Your task to perform on an android device: Go to Yahoo.com Image 0: 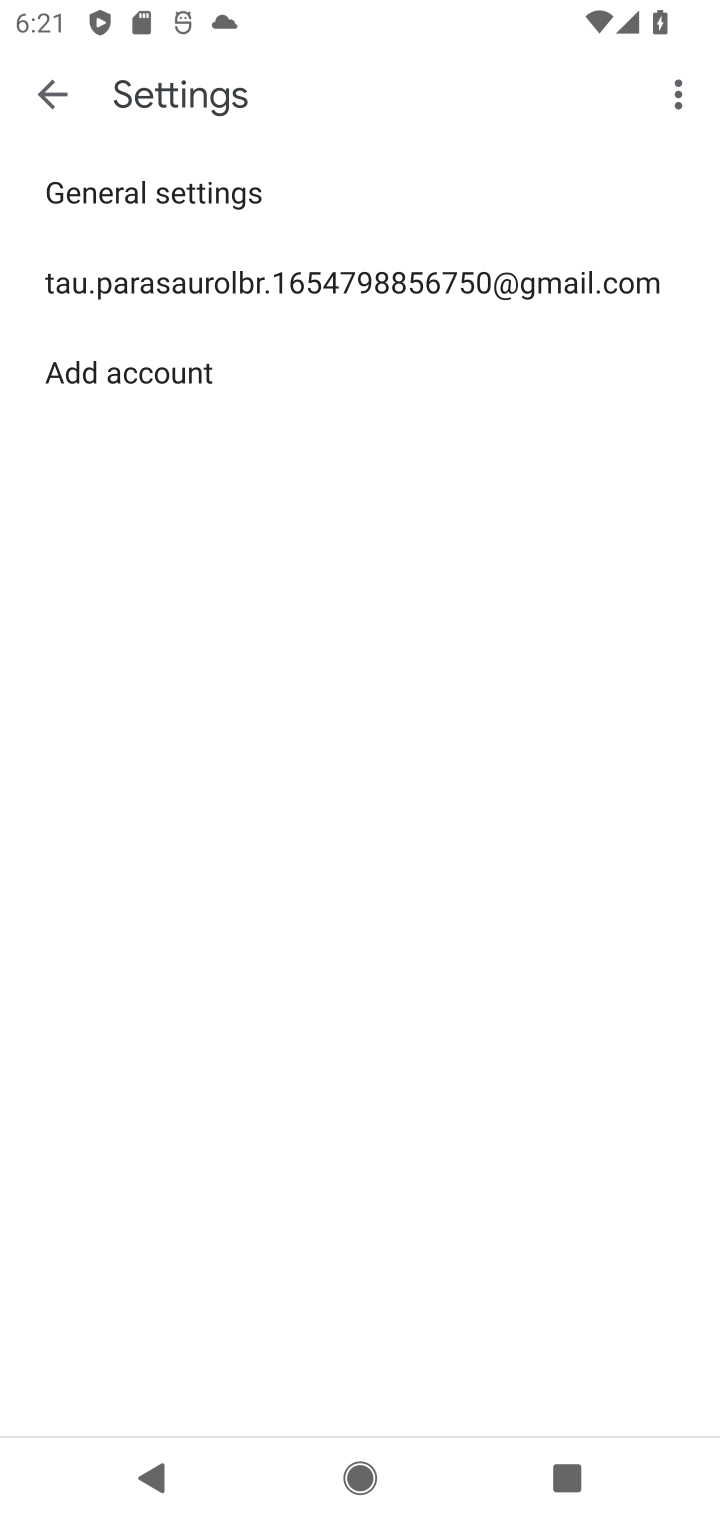
Step 0: press home button
Your task to perform on an android device: Go to Yahoo.com Image 1: 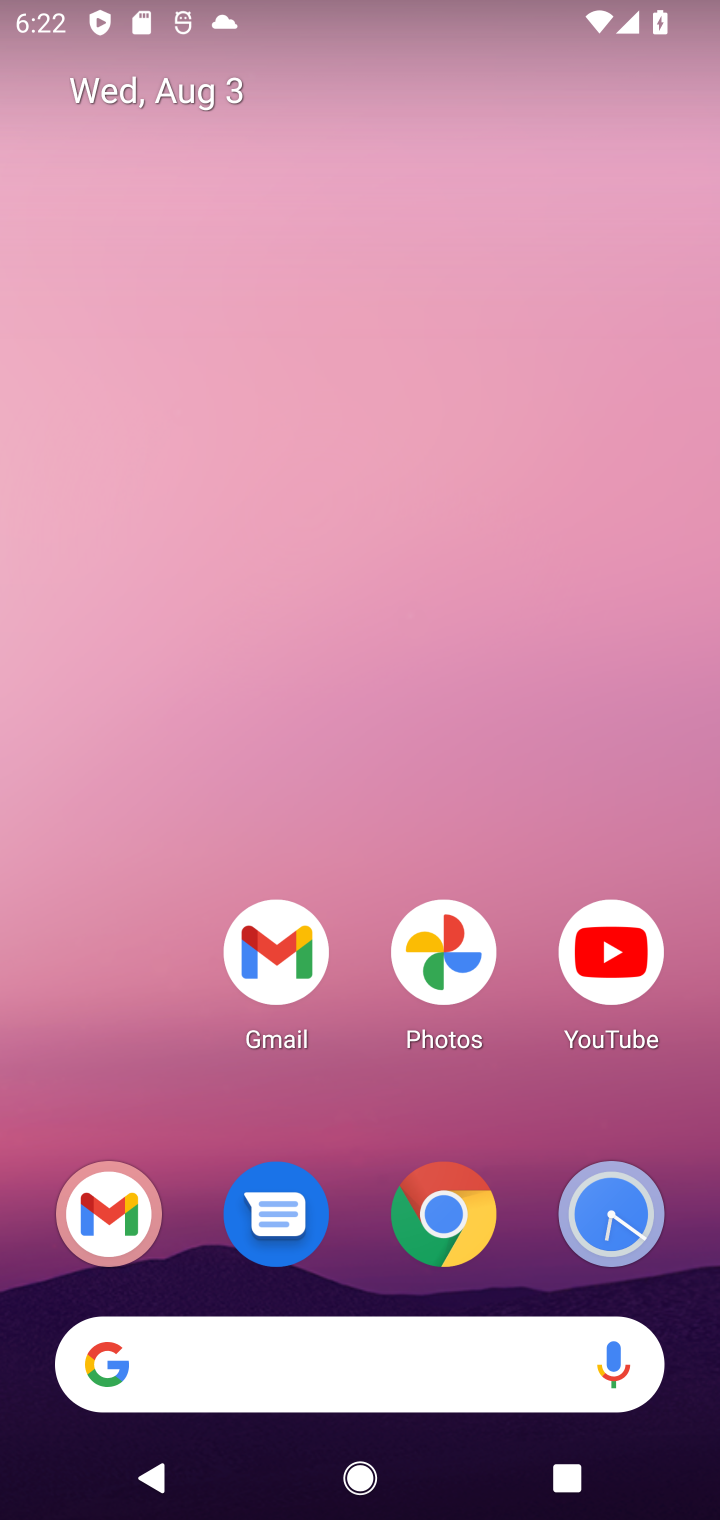
Step 1: drag from (107, 724) to (300, 100)
Your task to perform on an android device: Go to Yahoo.com Image 2: 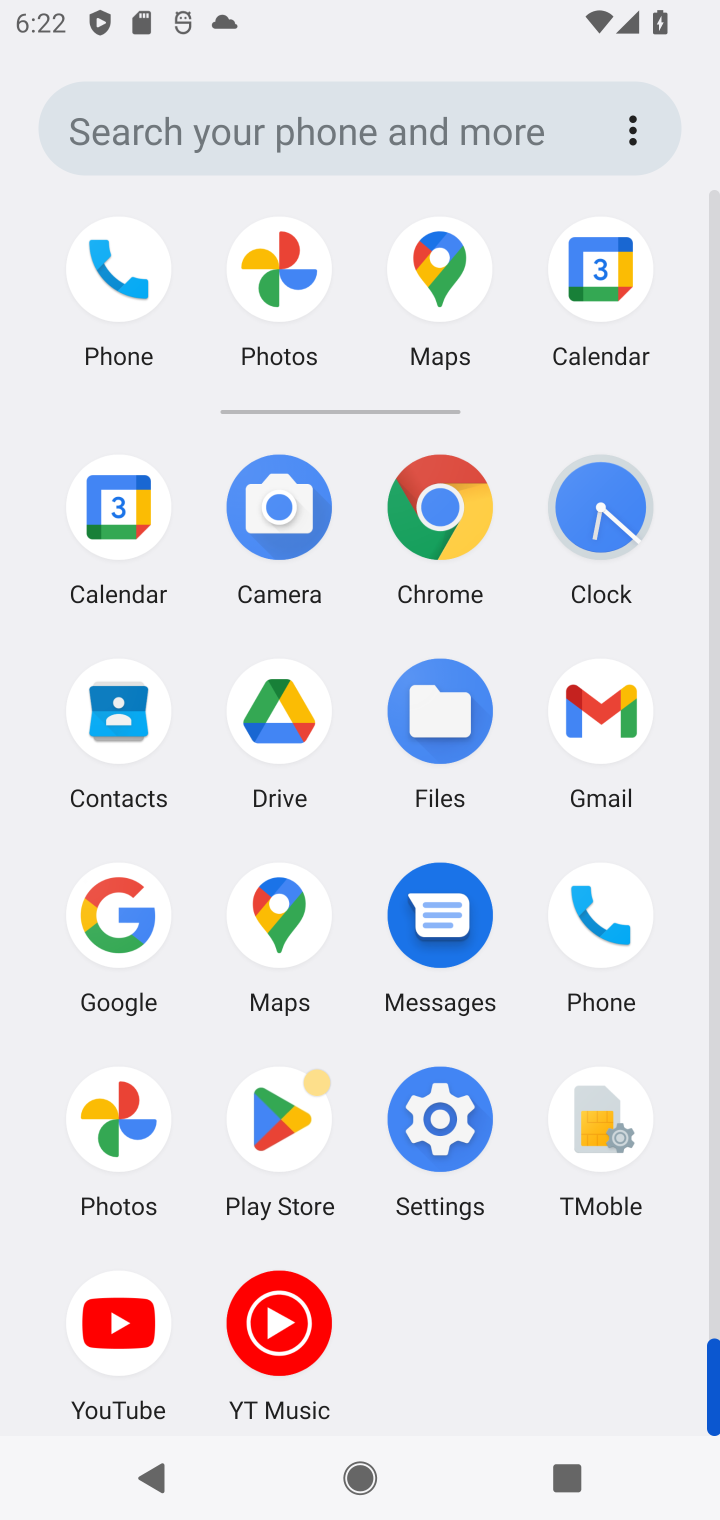
Step 2: click (417, 515)
Your task to perform on an android device: Go to Yahoo.com Image 3: 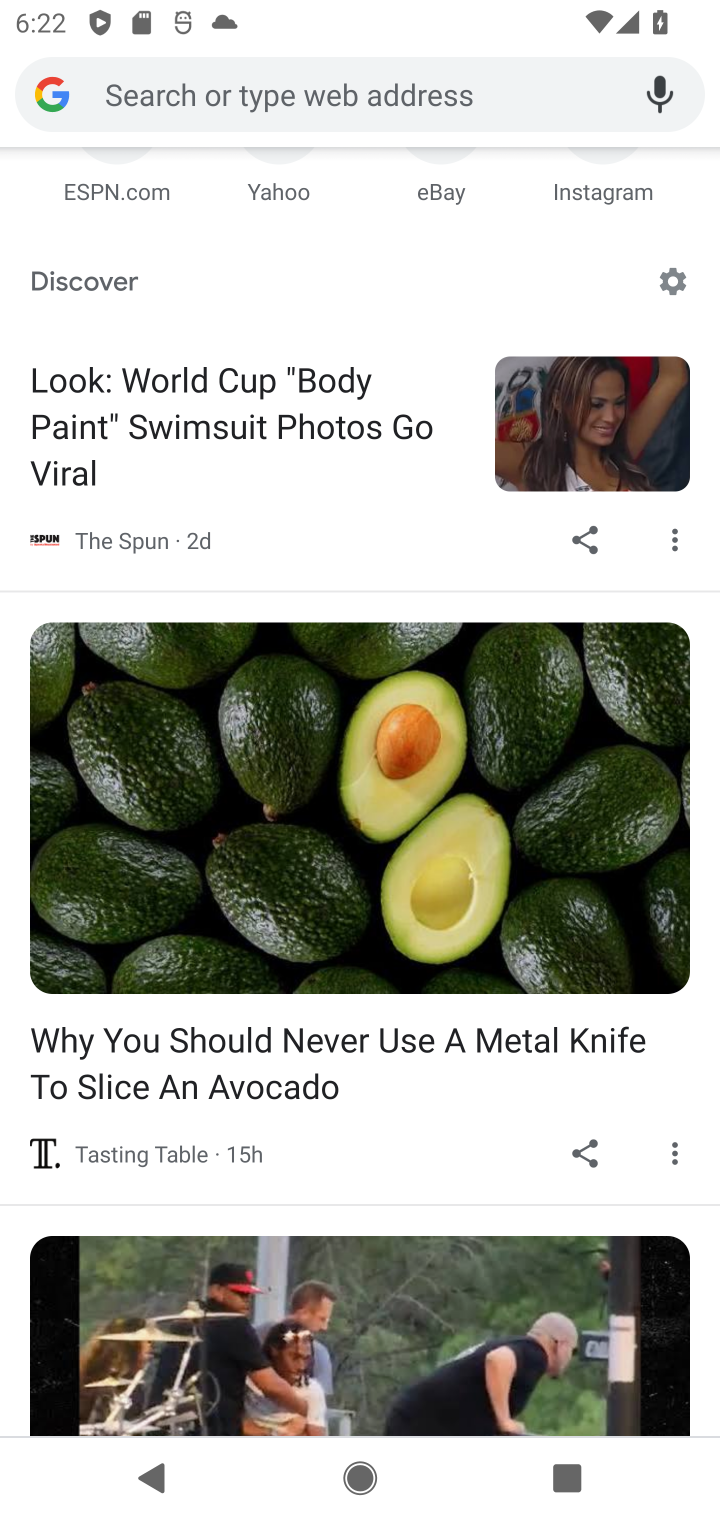
Step 3: drag from (362, 1329) to (400, 1443)
Your task to perform on an android device: Go to Yahoo.com Image 4: 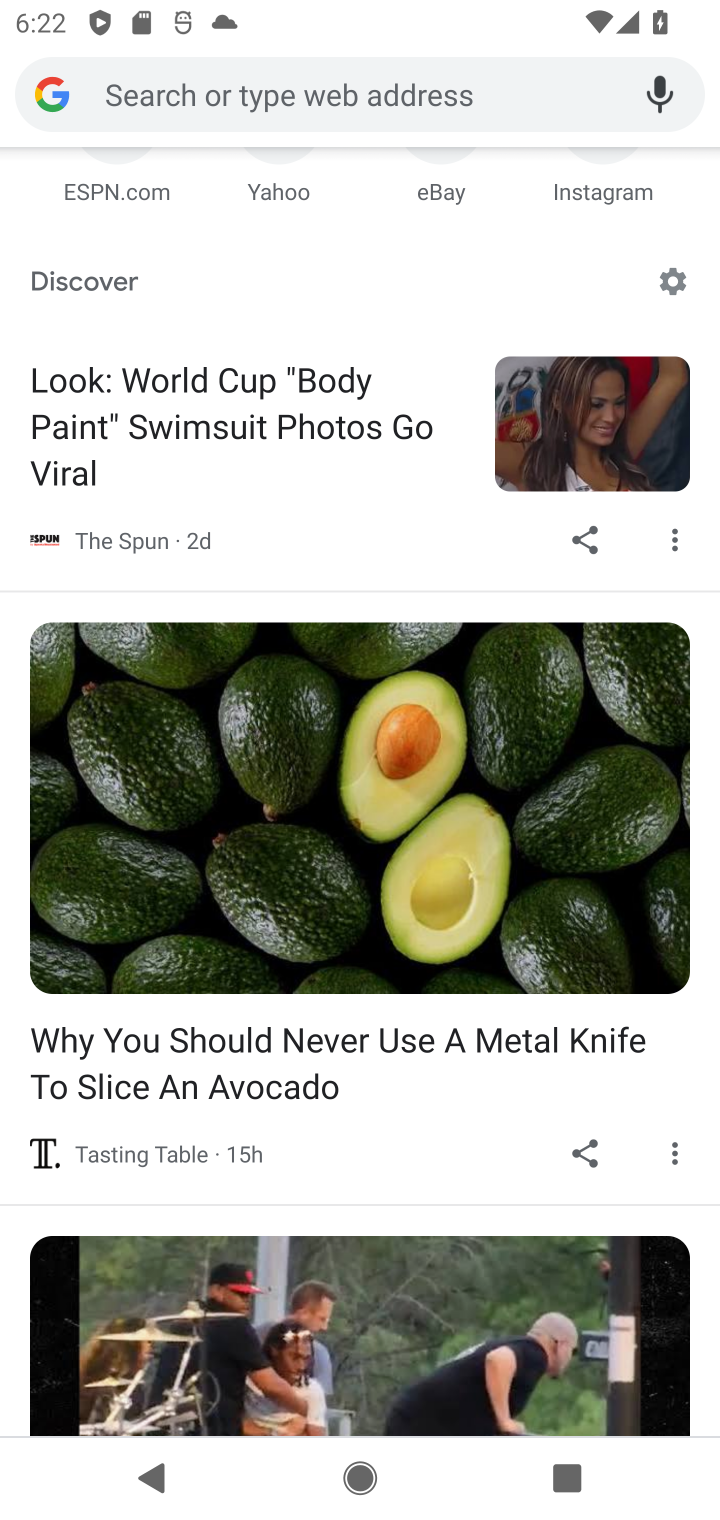
Step 4: drag from (416, 607) to (540, 1306)
Your task to perform on an android device: Go to Yahoo.com Image 5: 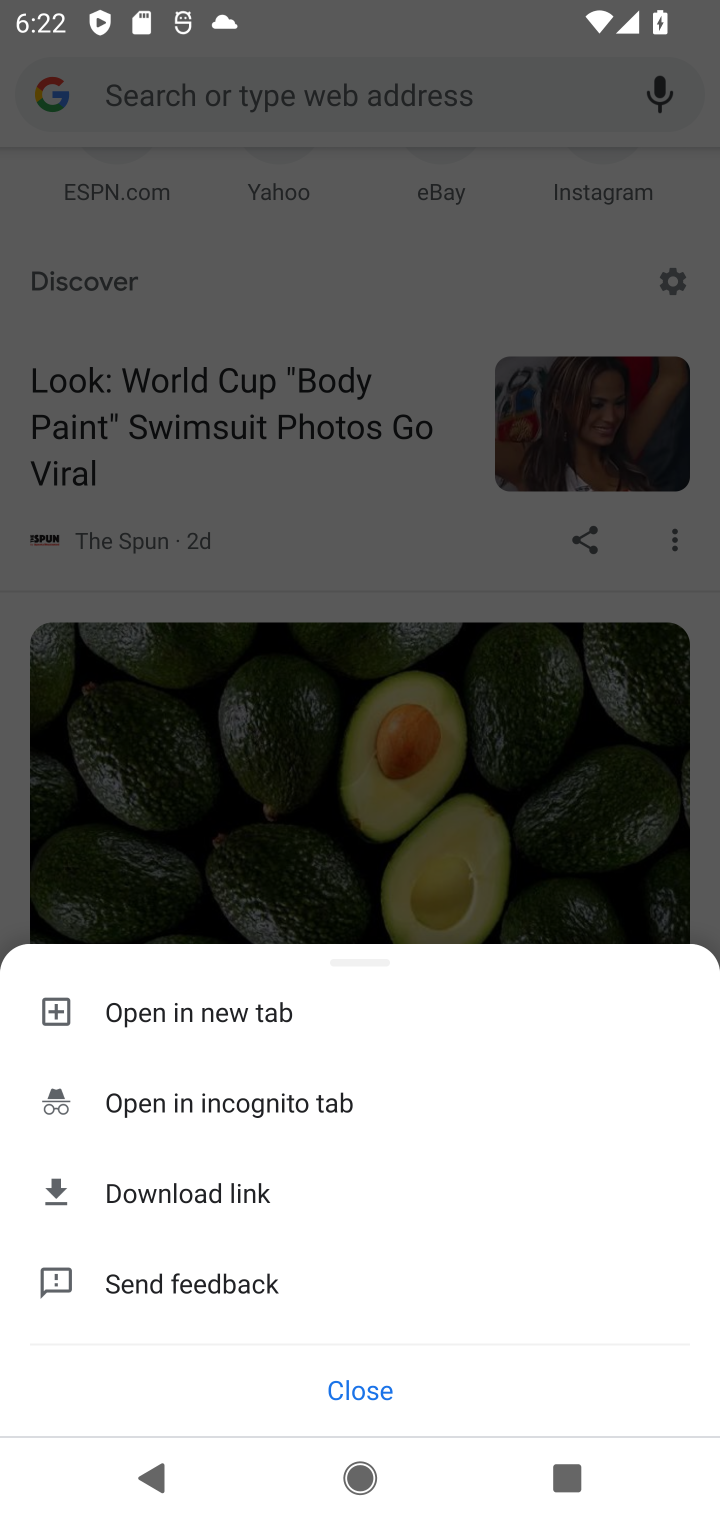
Step 5: click (368, 321)
Your task to perform on an android device: Go to Yahoo.com Image 6: 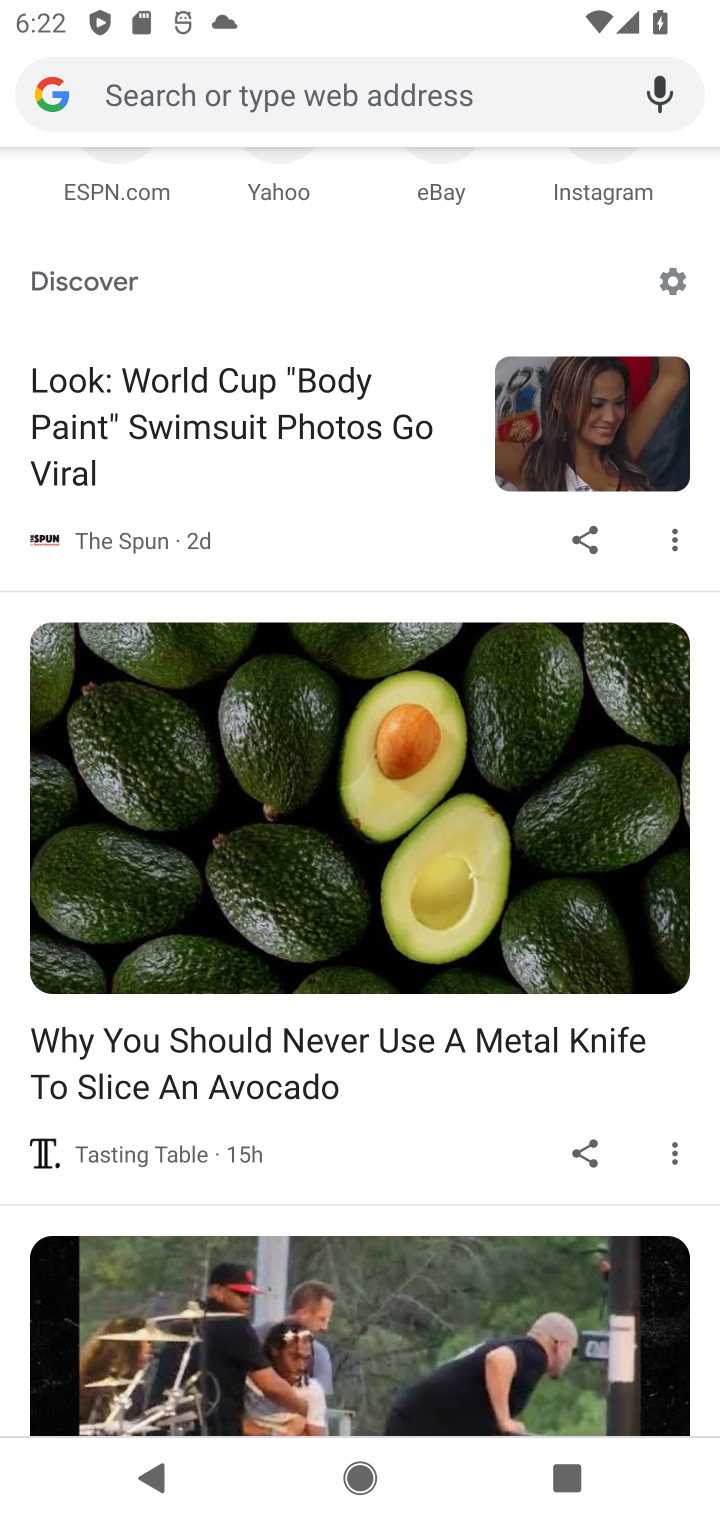
Step 6: drag from (428, 437) to (565, 1183)
Your task to perform on an android device: Go to Yahoo.com Image 7: 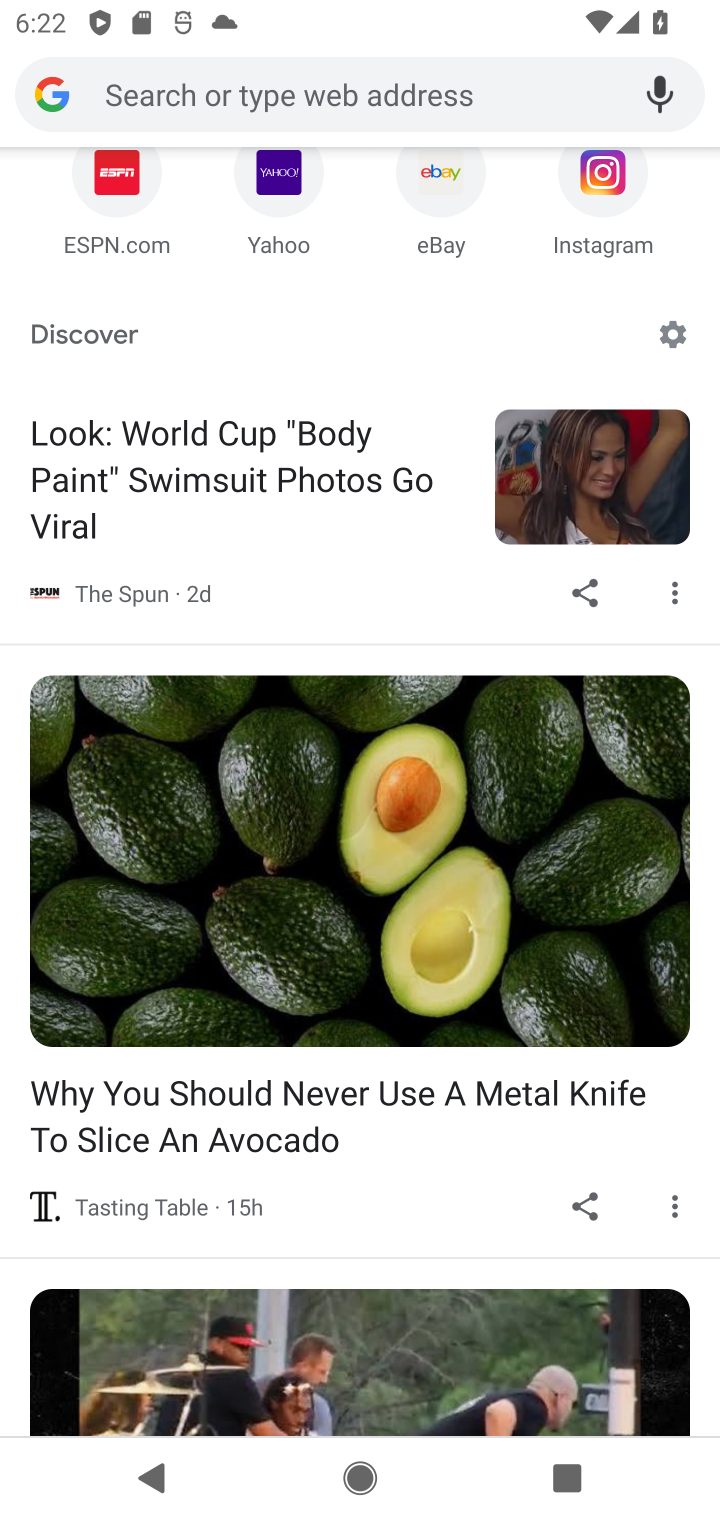
Step 7: drag from (403, 998) to (502, 1205)
Your task to perform on an android device: Go to Yahoo.com Image 8: 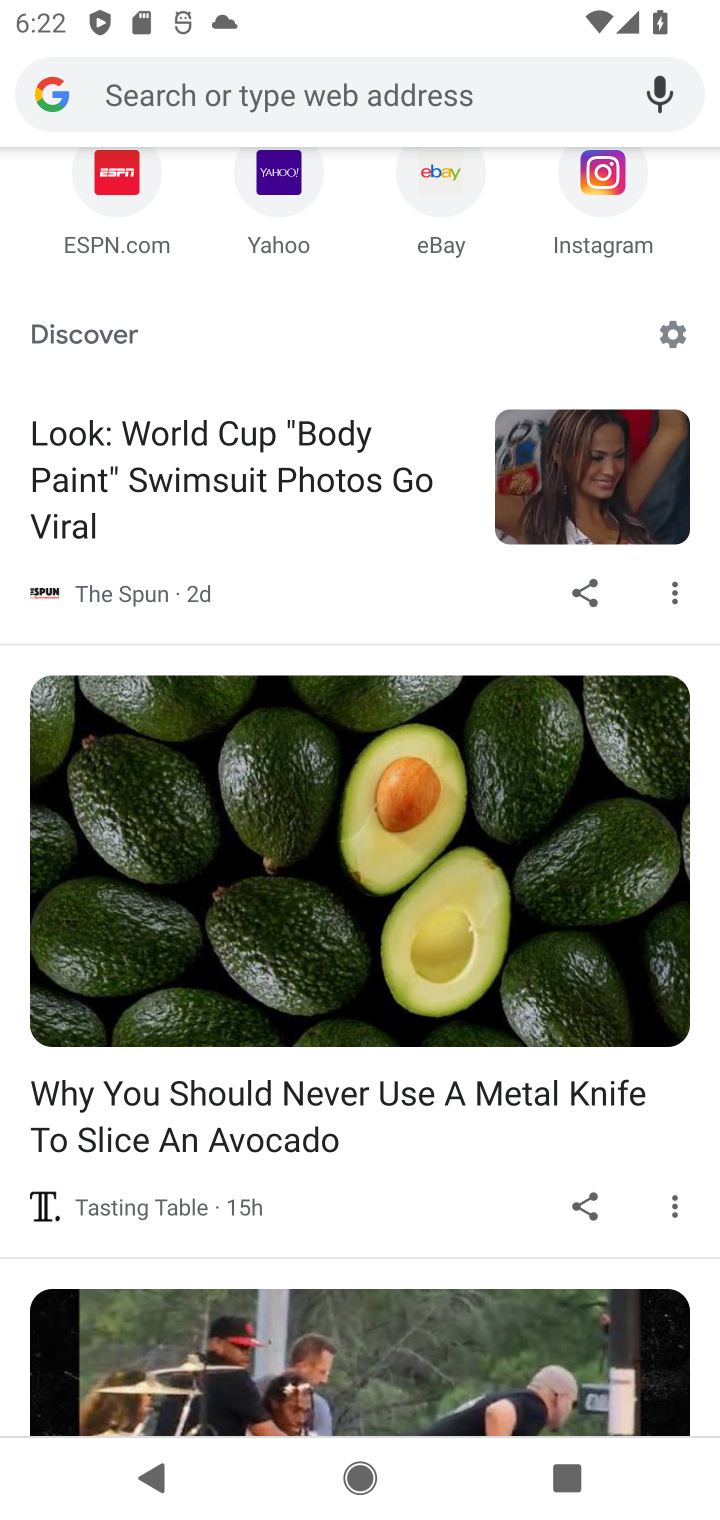
Step 8: drag from (318, 351) to (483, 1317)
Your task to perform on an android device: Go to Yahoo.com Image 9: 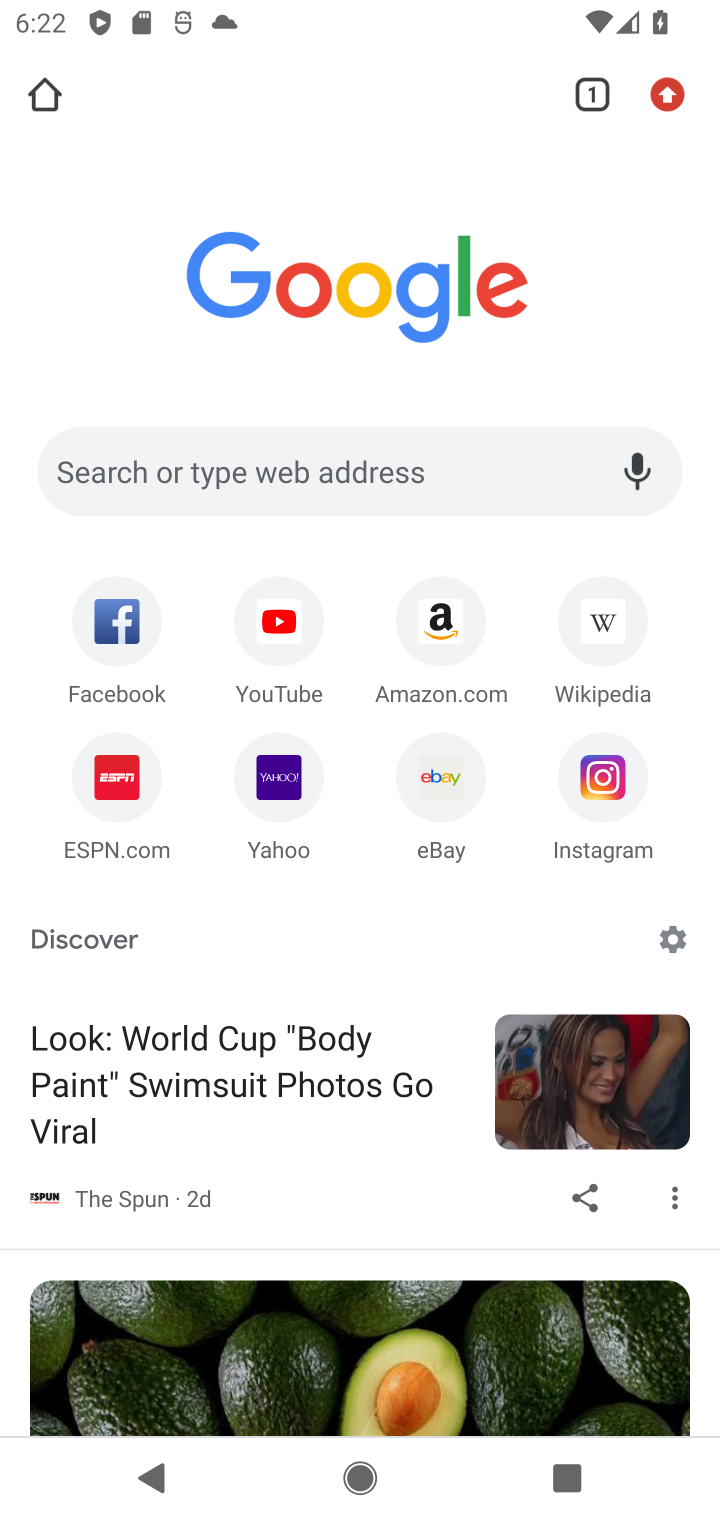
Step 9: click (270, 790)
Your task to perform on an android device: Go to Yahoo.com Image 10: 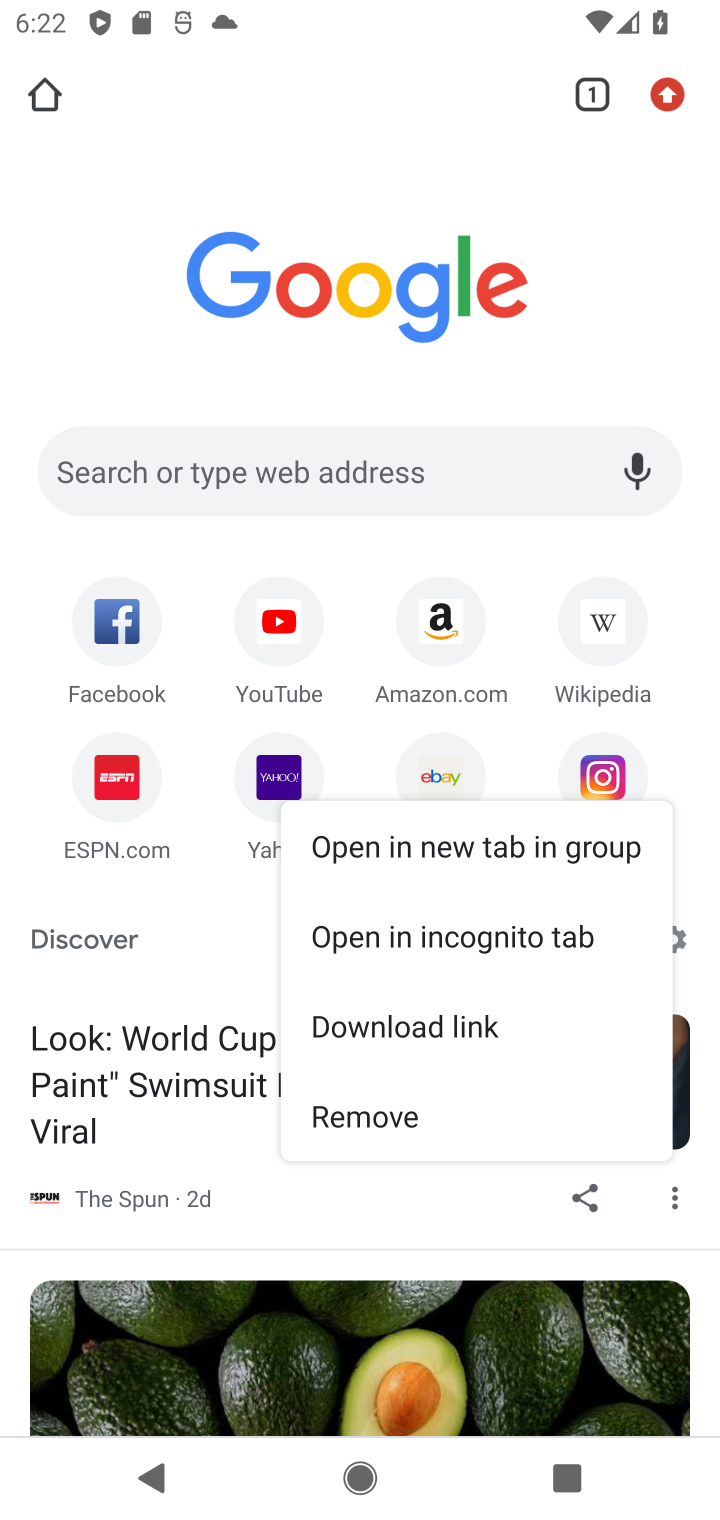
Step 10: click (270, 788)
Your task to perform on an android device: Go to Yahoo.com Image 11: 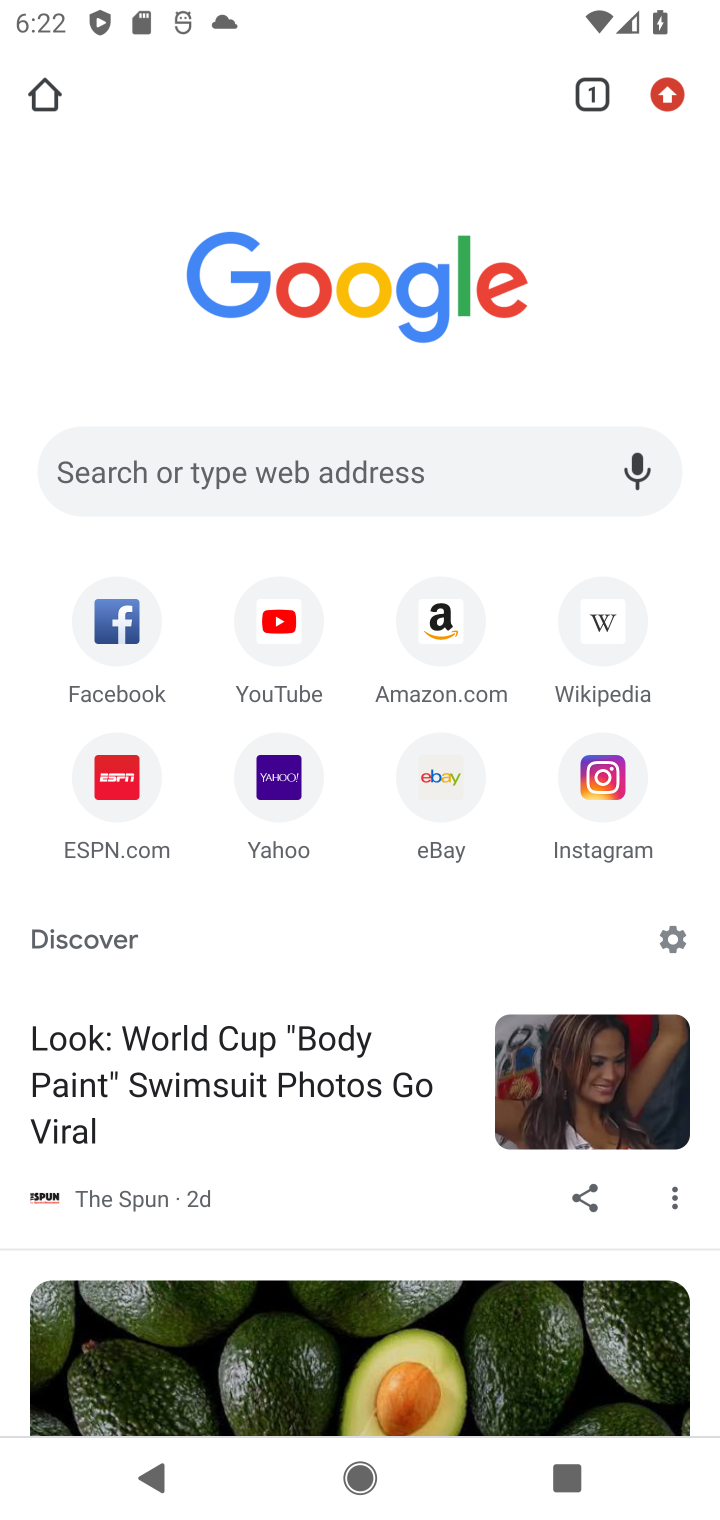
Step 11: click (268, 787)
Your task to perform on an android device: Go to Yahoo.com Image 12: 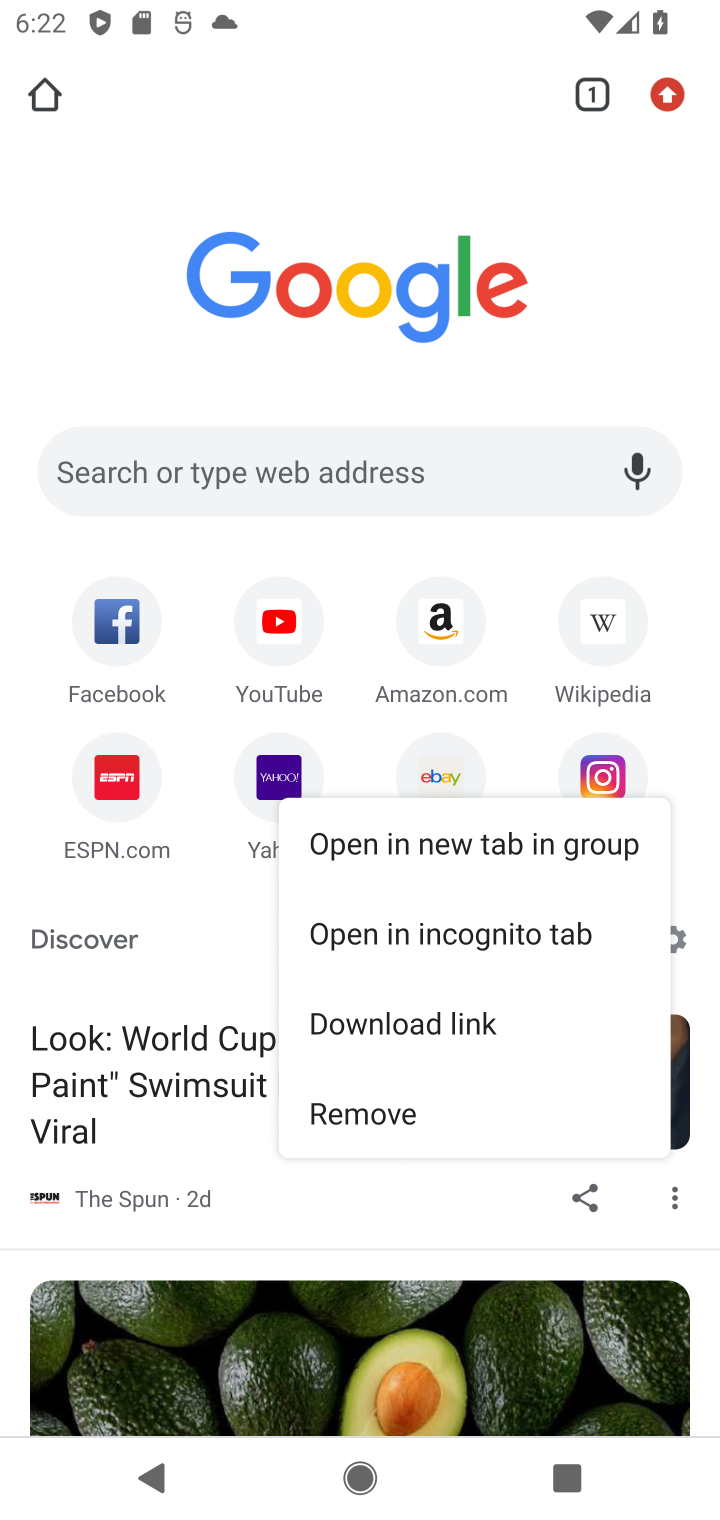
Step 12: click (263, 785)
Your task to perform on an android device: Go to Yahoo.com Image 13: 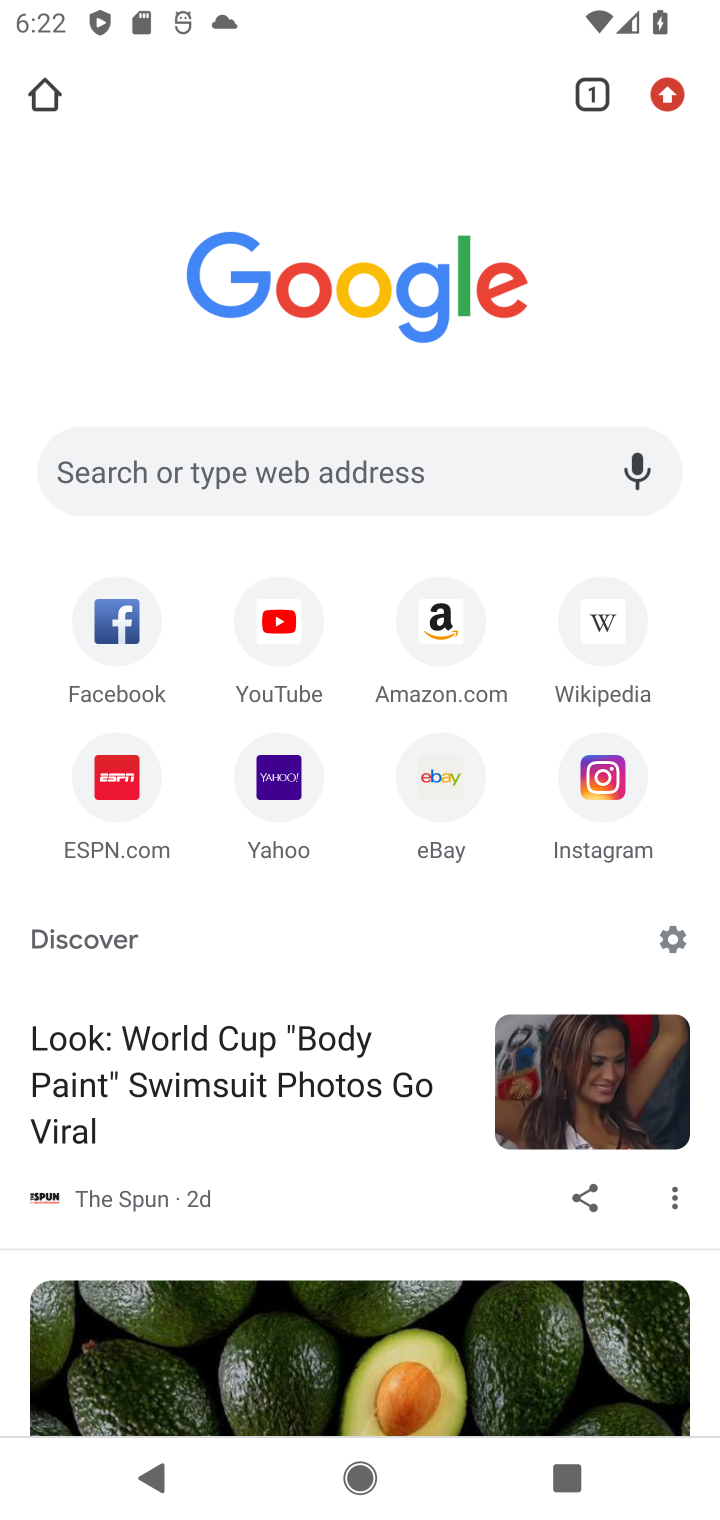
Step 13: click (282, 787)
Your task to perform on an android device: Go to Yahoo.com Image 14: 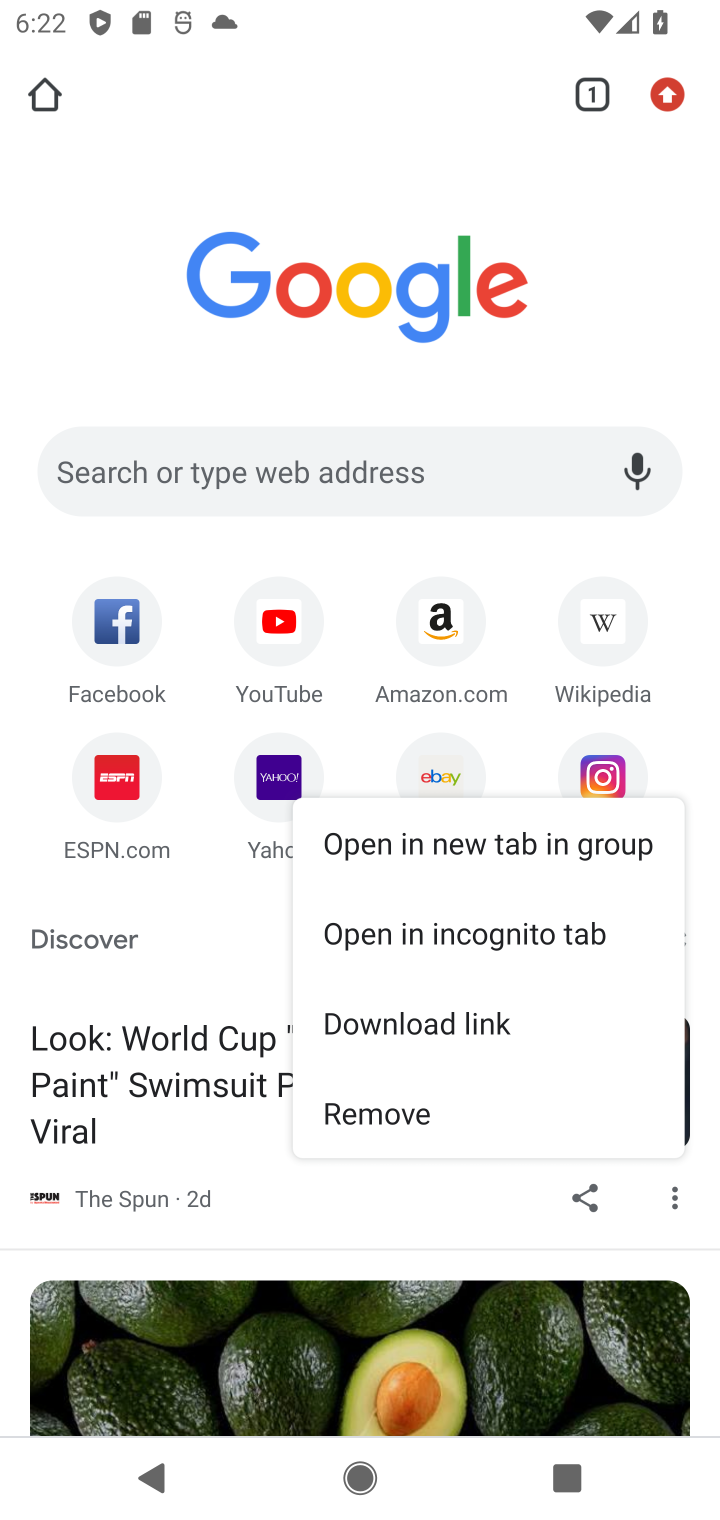
Step 14: click (282, 785)
Your task to perform on an android device: Go to Yahoo.com Image 15: 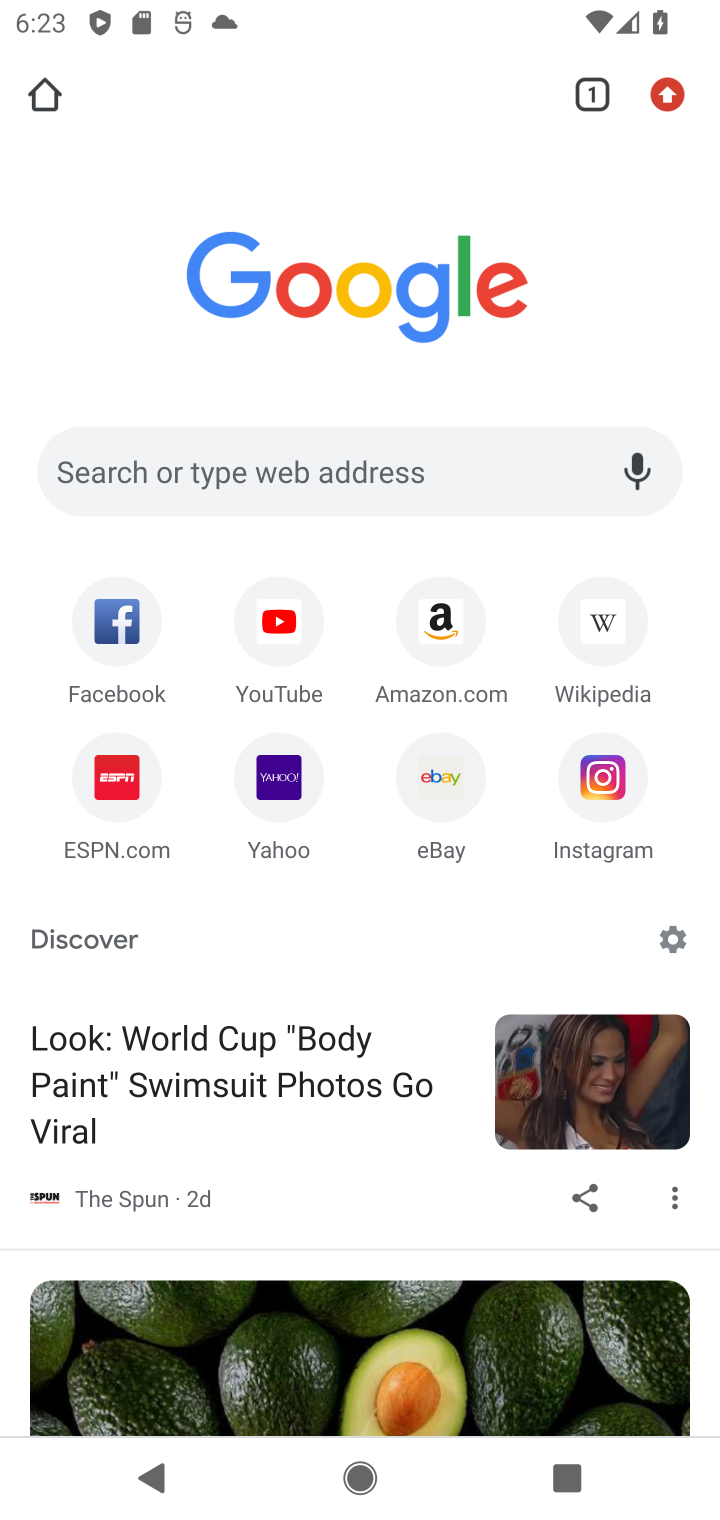
Step 15: click (282, 783)
Your task to perform on an android device: Go to Yahoo.com Image 16: 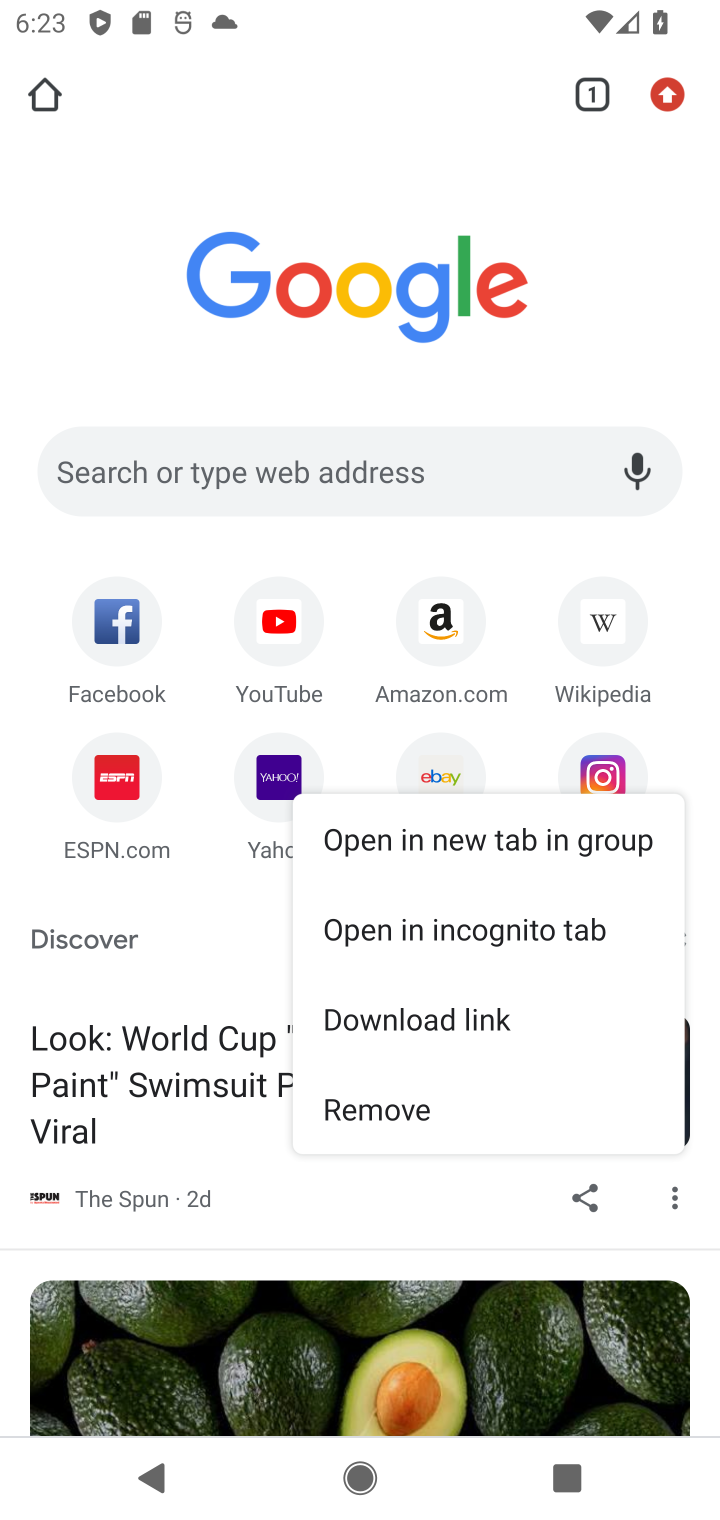
Step 16: click (282, 783)
Your task to perform on an android device: Go to Yahoo.com Image 17: 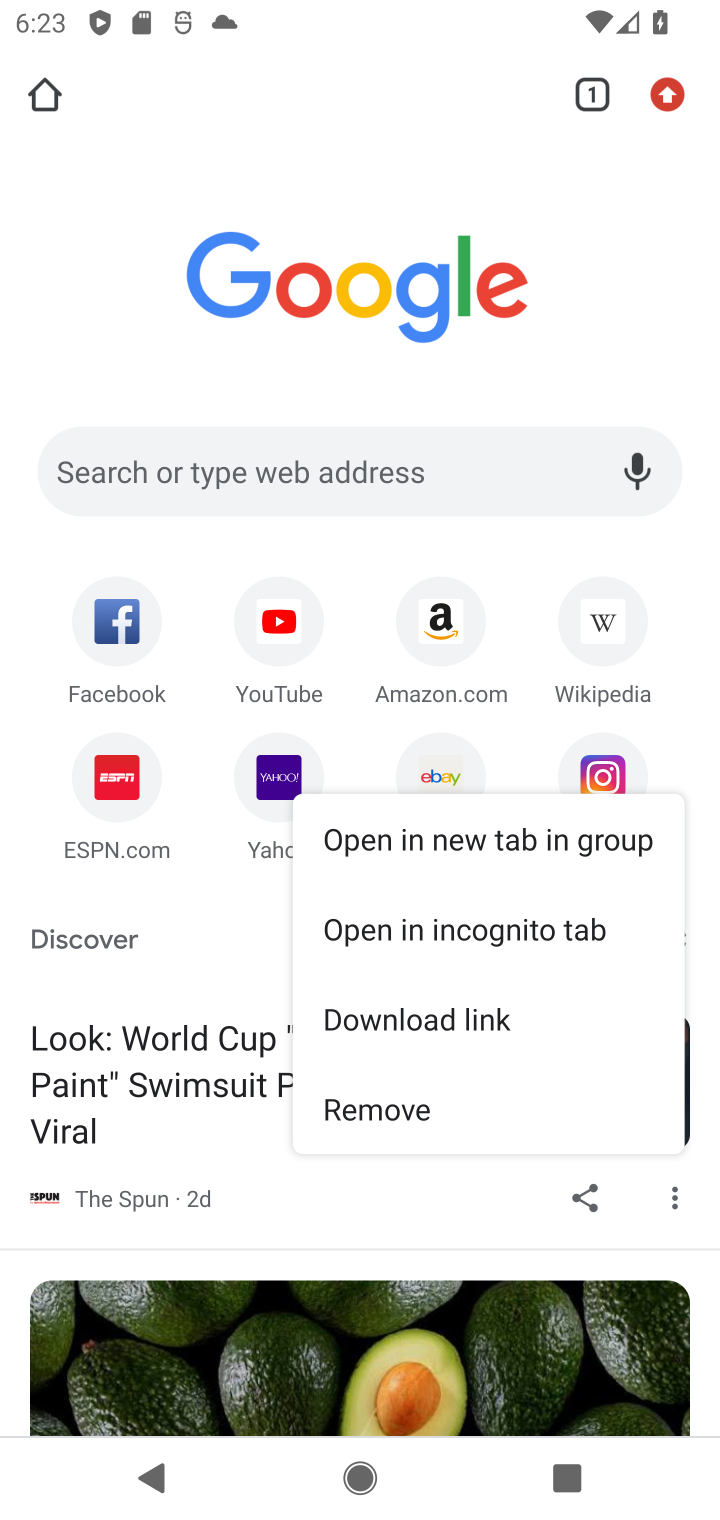
Step 17: click (282, 785)
Your task to perform on an android device: Go to Yahoo.com Image 18: 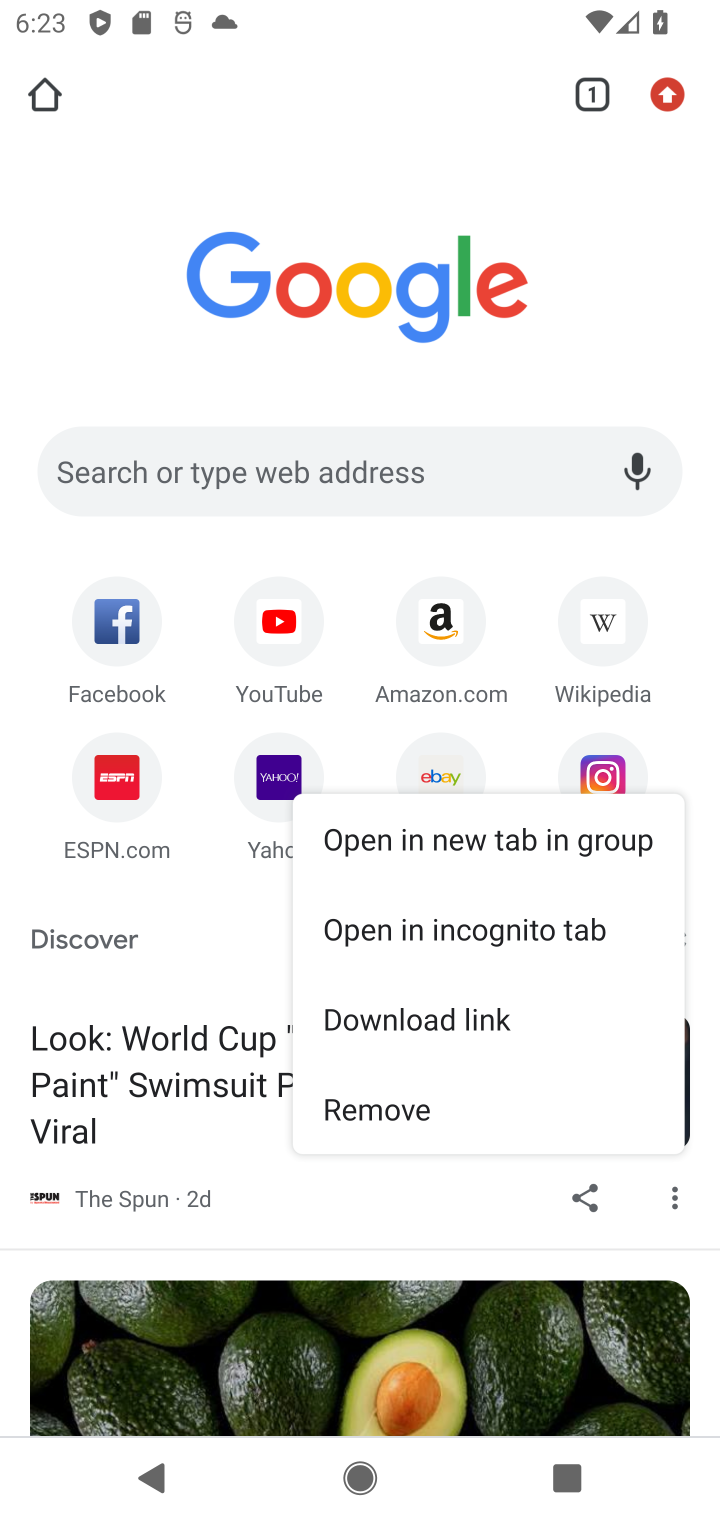
Step 18: click (282, 783)
Your task to perform on an android device: Go to Yahoo.com Image 19: 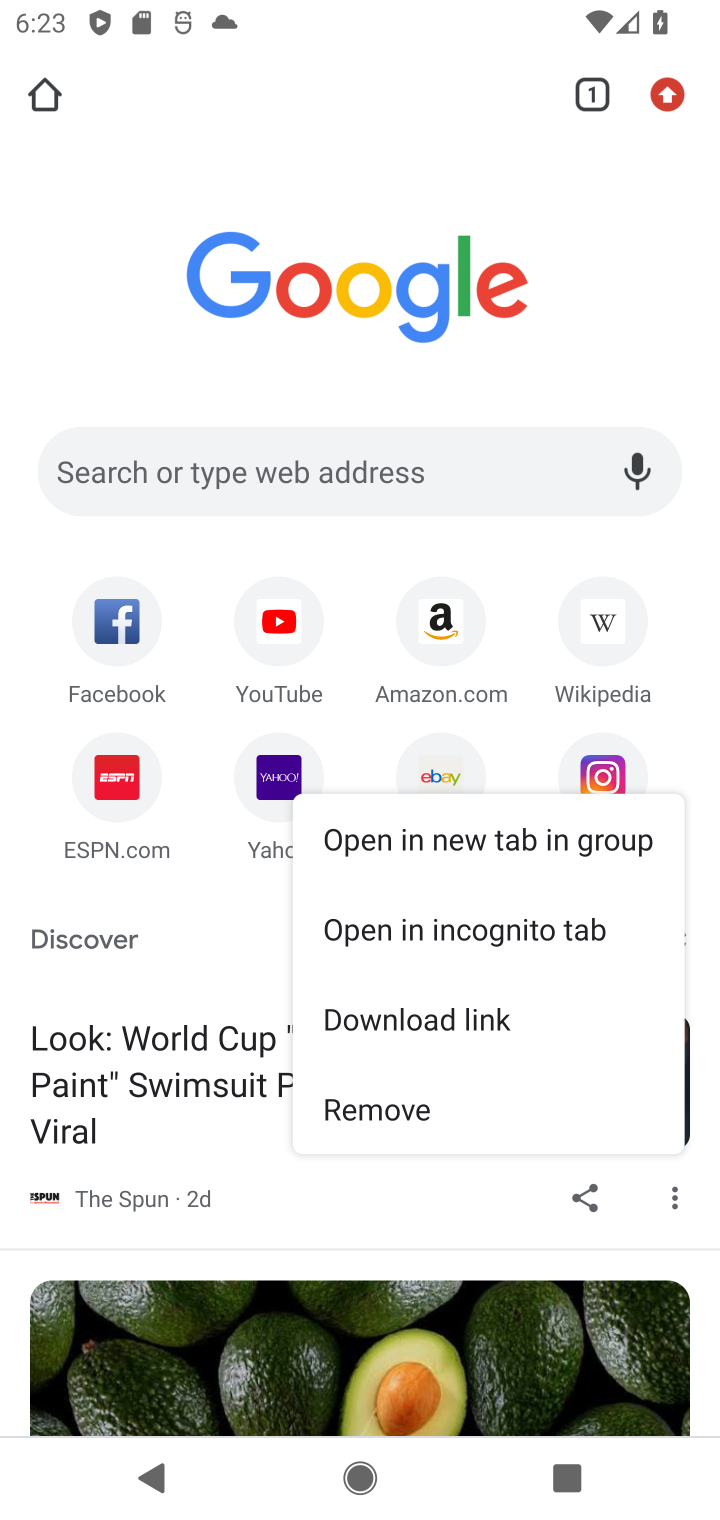
Step 19: click (282, 783)
Your task to perform on an android device: Go to Yahoo.com Image 20: 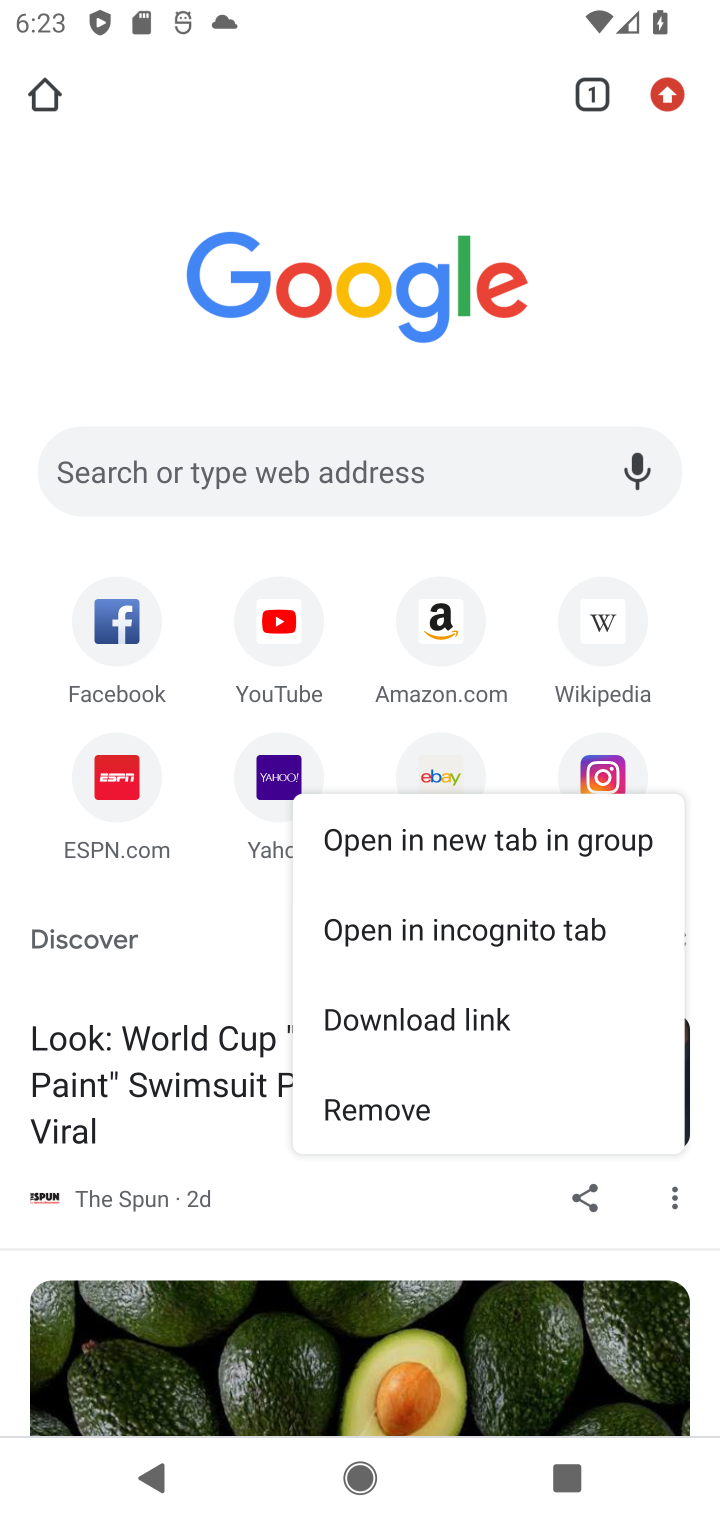
Step 20: click (282, 785)
Your task to perform on an android device: Go to Yahoo.com Image 21: 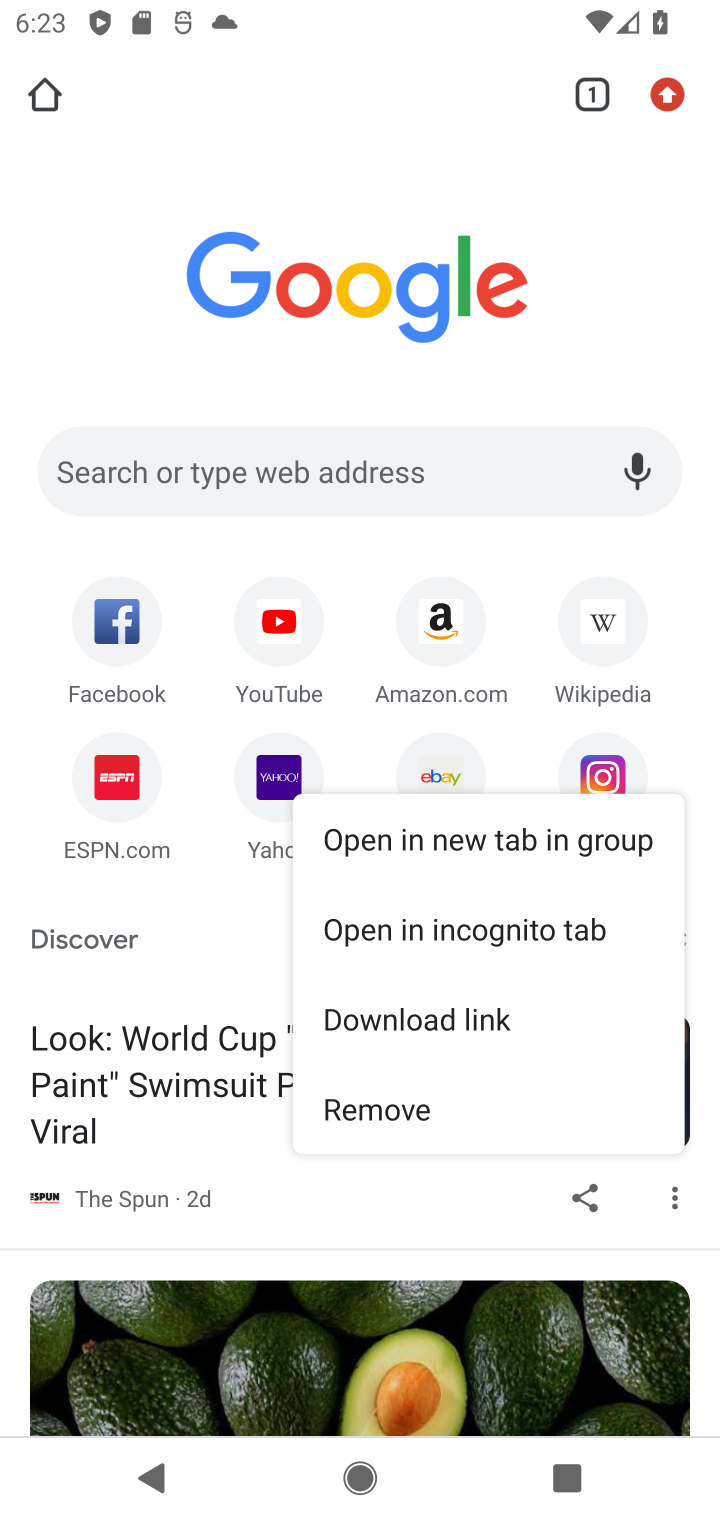
Step 21: click (282, 783)
Your task to perform on an android device: Go to Yahoo.com Image 22: 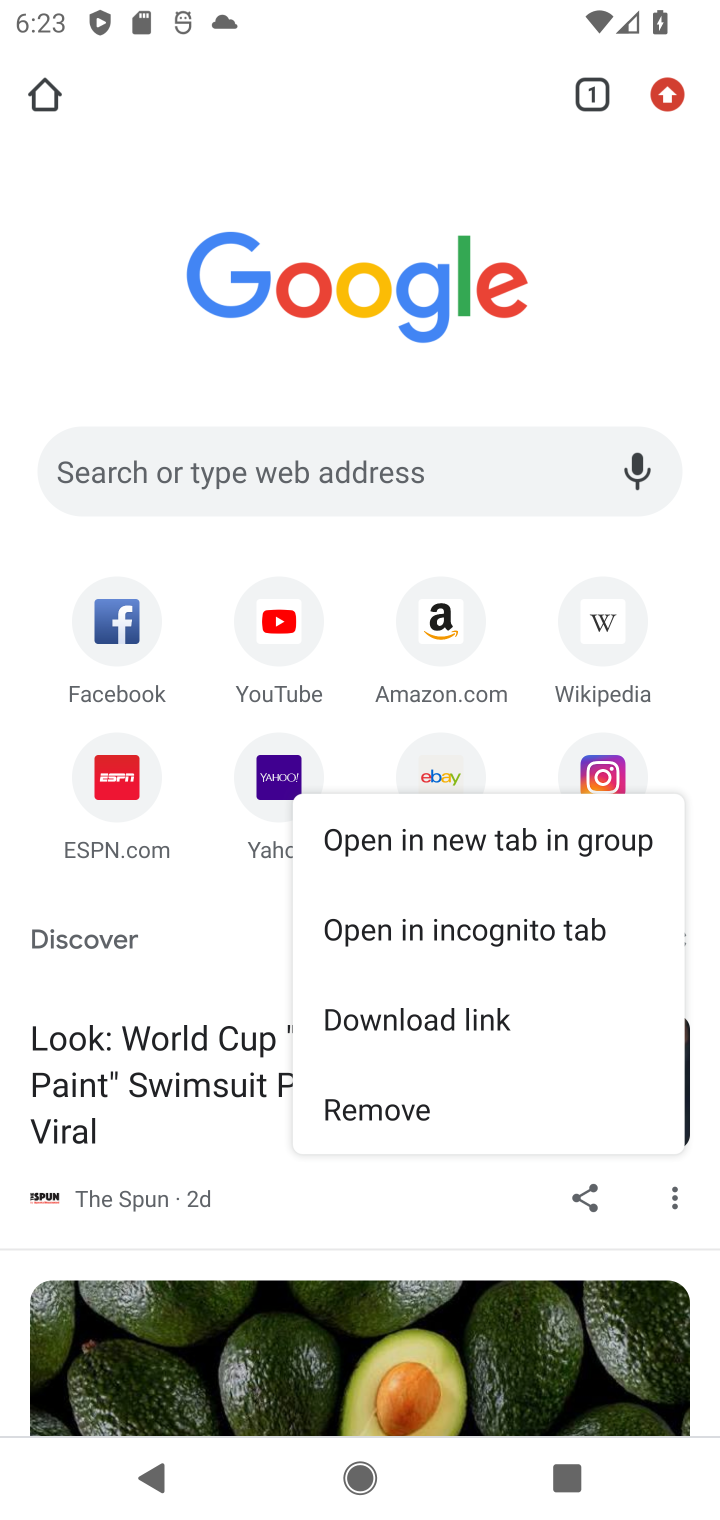
Step 22: click (264, 769)
Your task to perform on an android device: Go to Yahoo.com Image 23: 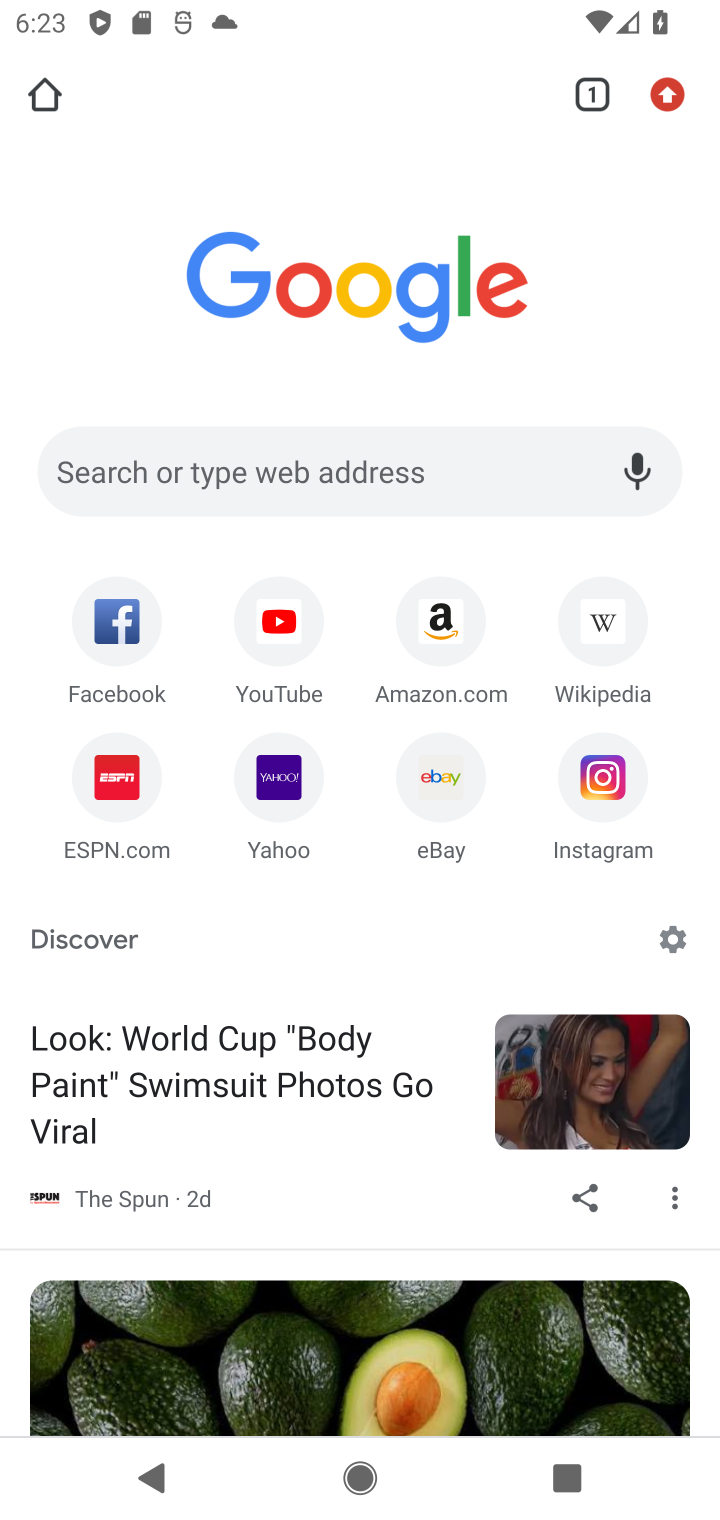
Step 23: click (279, 795)
Your task to perform on an android device: Go to Yahoo.com Image 24: 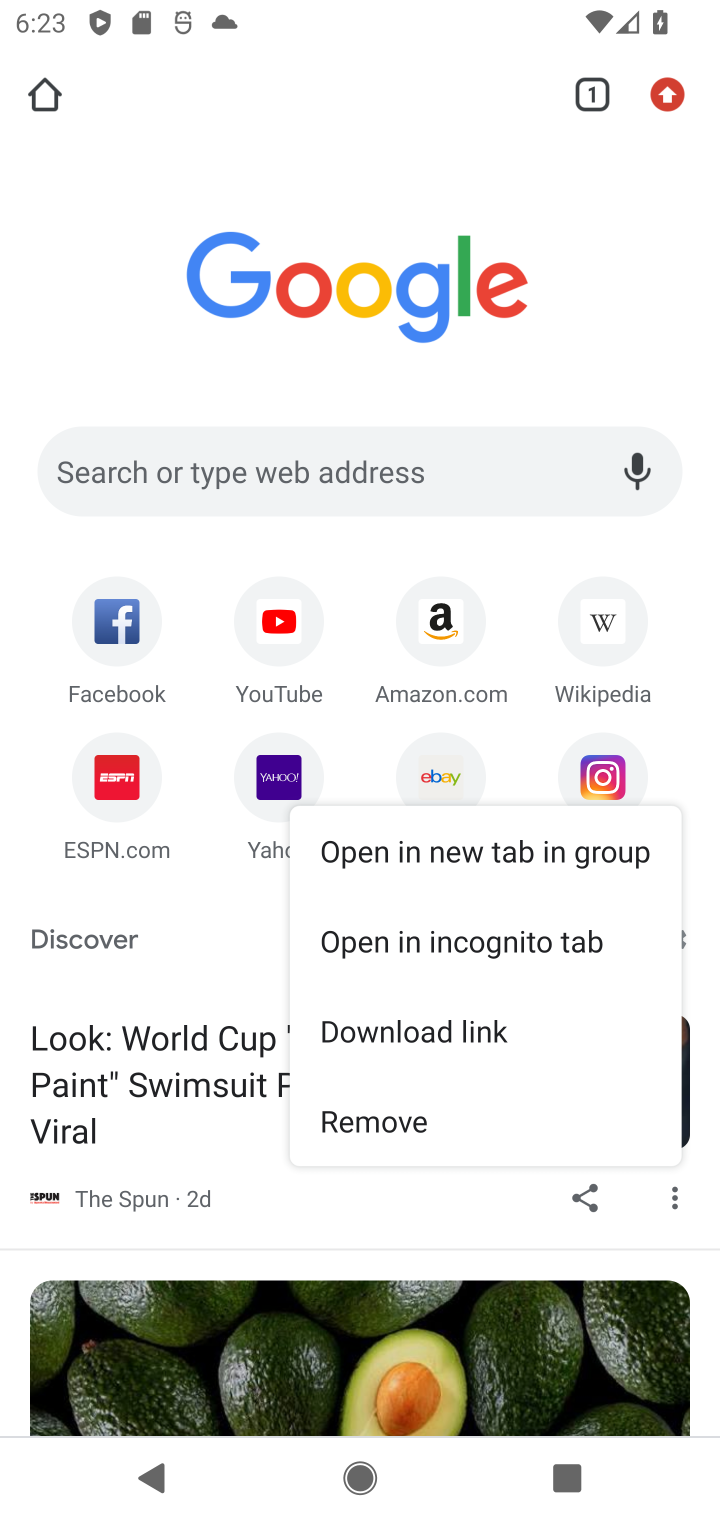
Step 24: click (279, 795)
Your task to perform on an android device: Go to Yahoo.com Image 25: 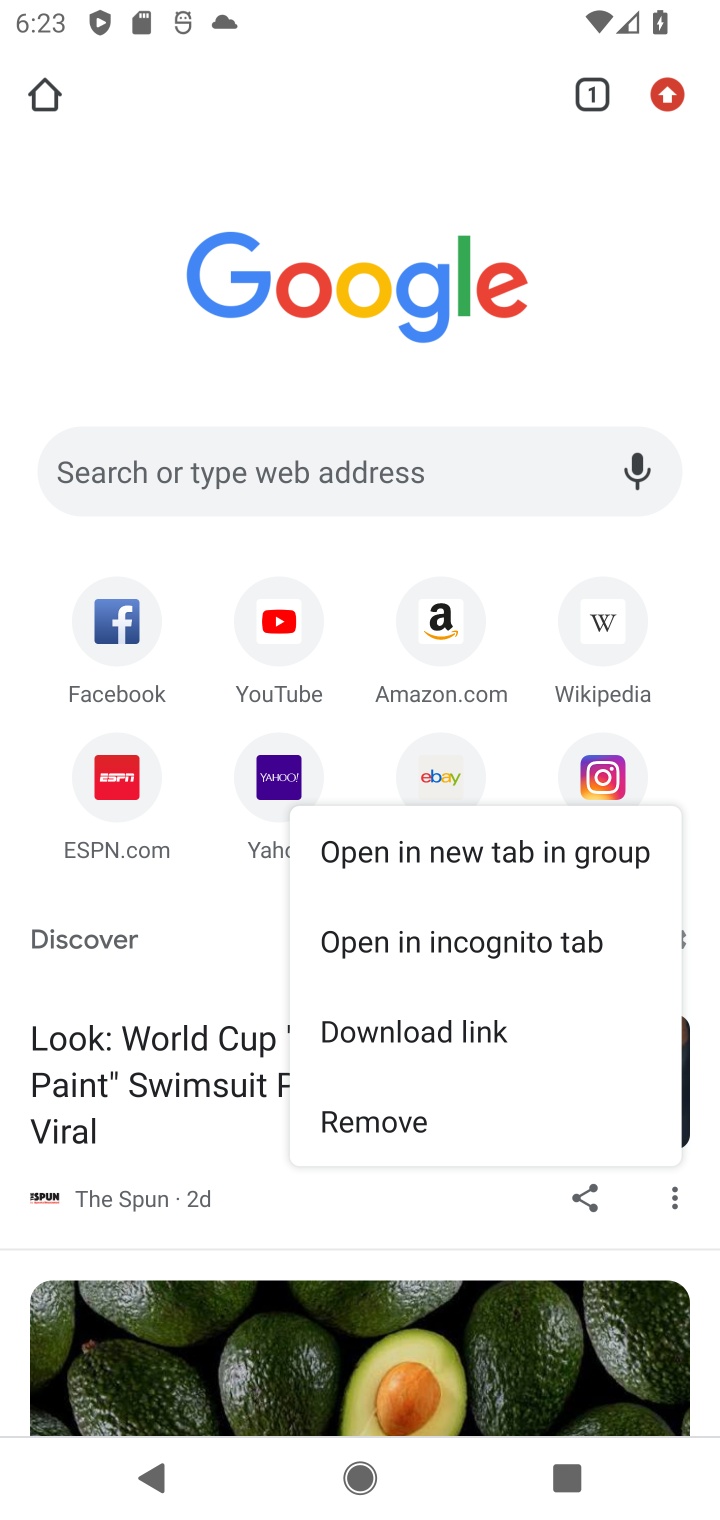
Step 25: click (277, 791)
Your task to perform on an android device: Go to Yahoo.com Image 26: 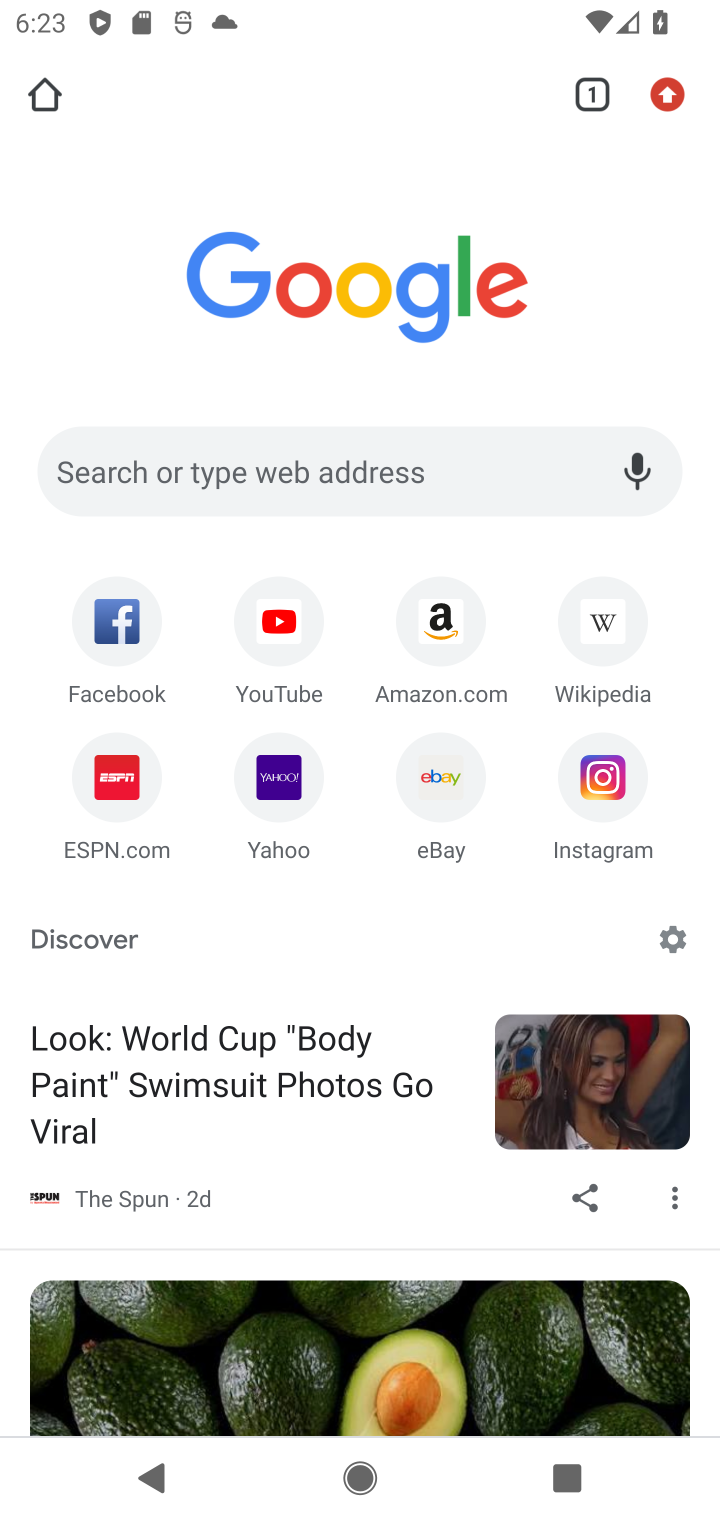
Step 26: click (277, 789)
Your task to perform on an android device: Go to Yahoo.com Image 27: 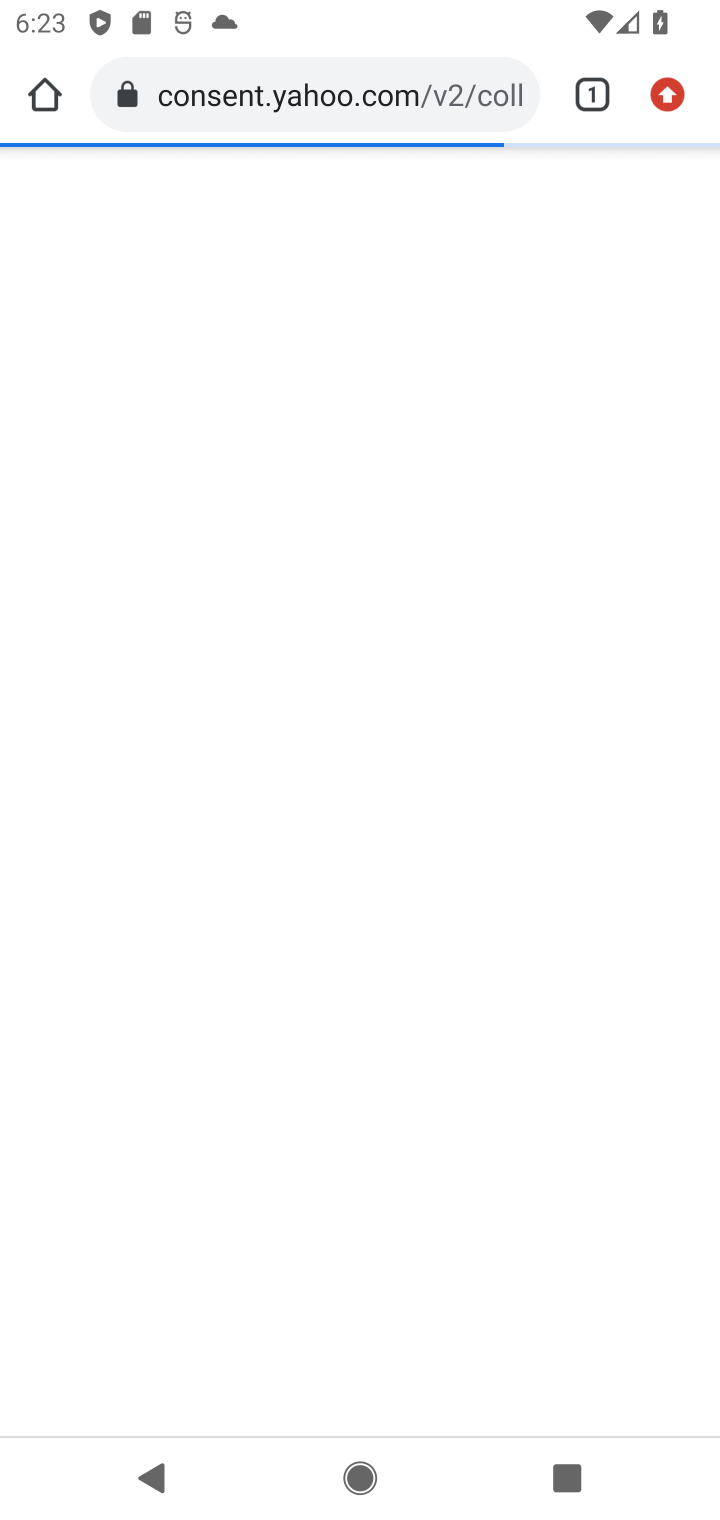
Step 27: click (277, 789)
Your task to perform on an android device: Go to Yahoo.com Image 28: 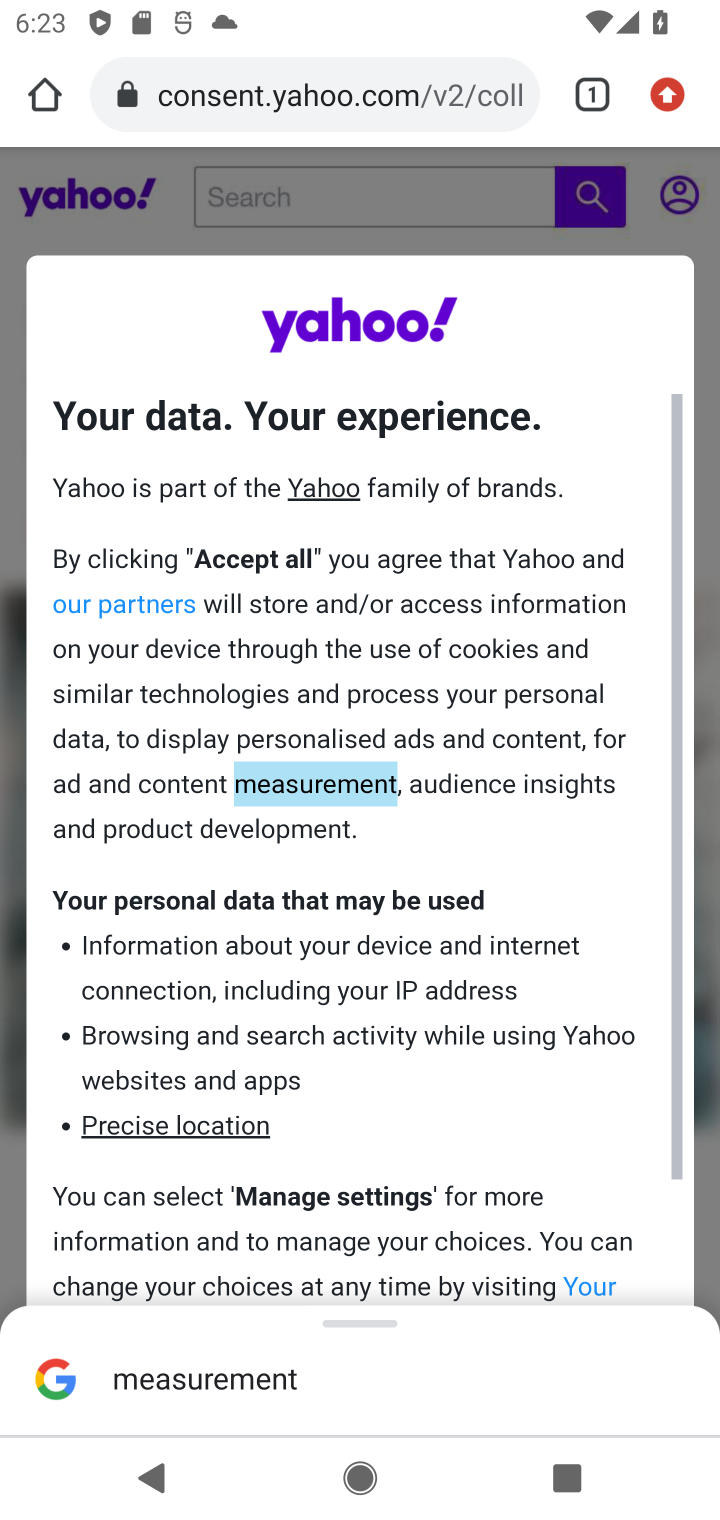
Step 28: task complete